Your task to perform on an android device: Go to network settings Image 0: 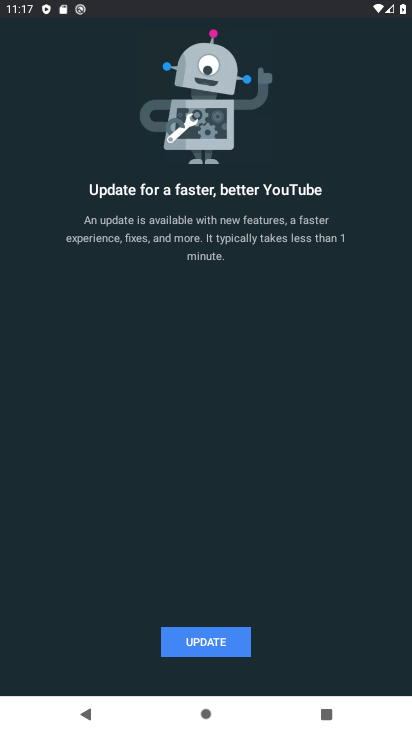
Step 0: press home button
Your task to perform on an android device: Go to network settings Image 1: 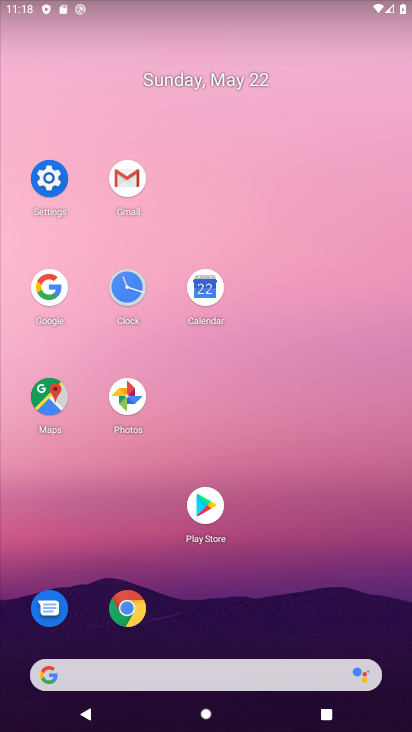
Step 1: click (45, 192)
Your task to perform on an android device: Go to network settings Image 2: 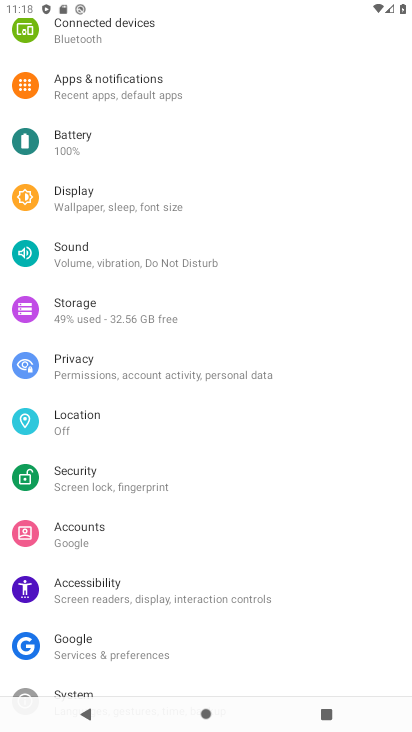
Step 2: drag from (229, 128) to (247, 504)
Your task to perform on an android device: Go to network settings Image 3: 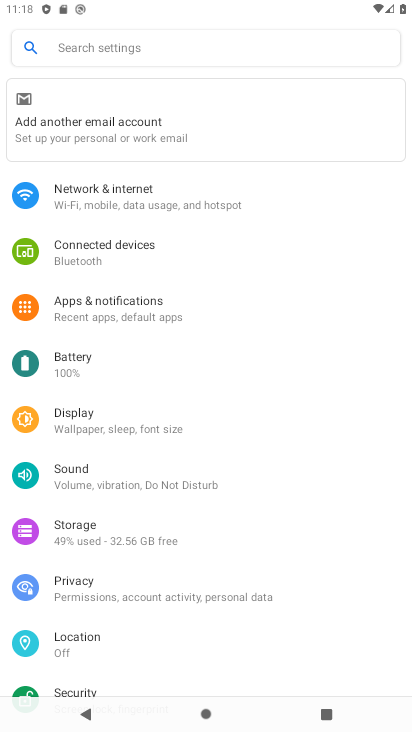
Step 3: click (187, 197)
Your task to perform on an android device: Go to network settings Image 4: 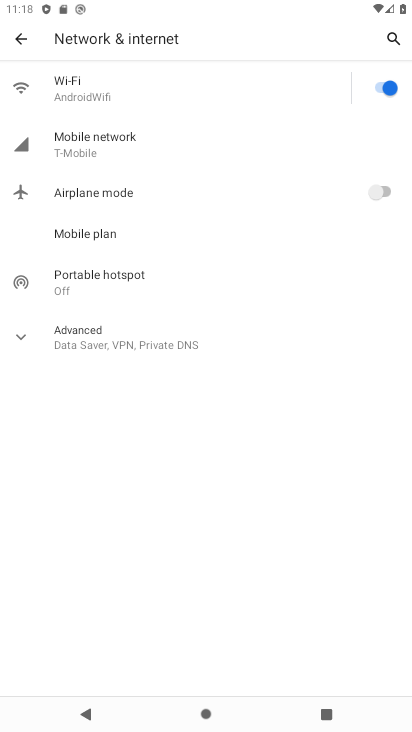
Step 4: click (95, 139)
Your task to perform on an android device: Go to network settings Image 5: 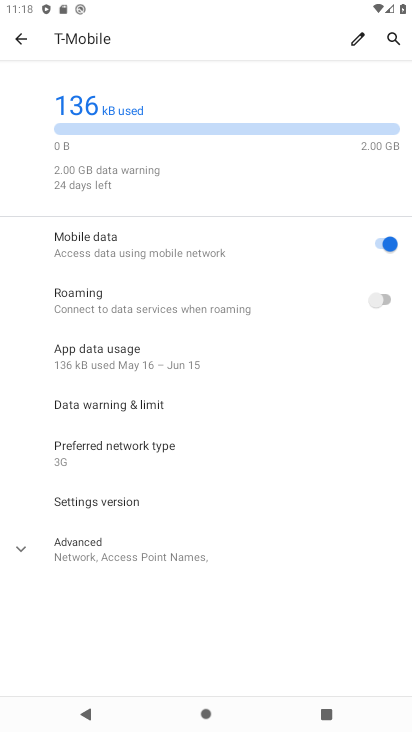
Step 5: task complete